Your task to perform on an android device: Open eBay Image 0: 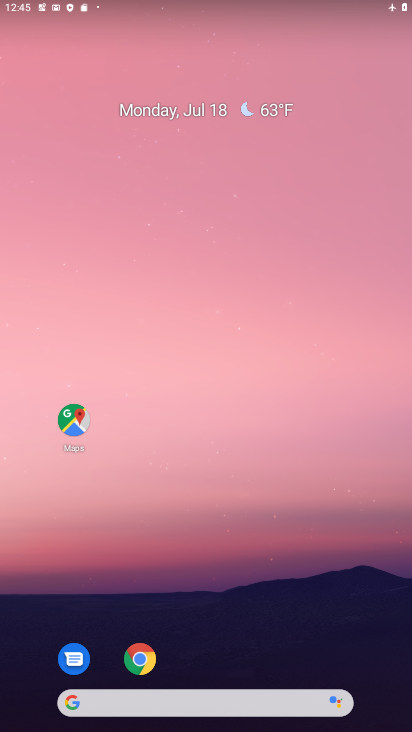
Step 0: drag from (227, 688) to (236, 194)
Your task to perform on an android device: Open eBay Image 1: 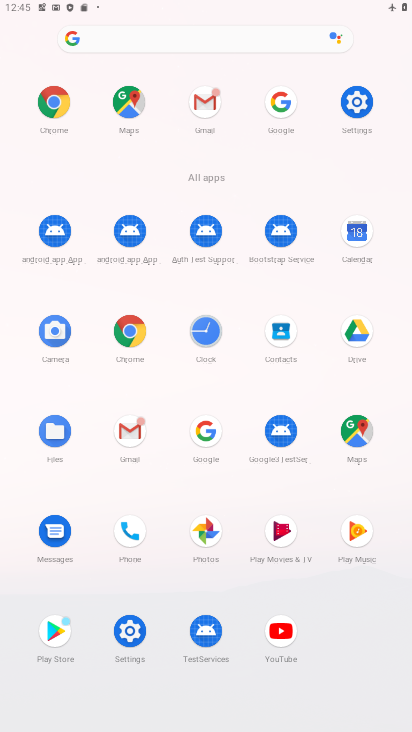
Step 1: click (56, 109)
Your task to perform on an android device: Open eBay Image 2: 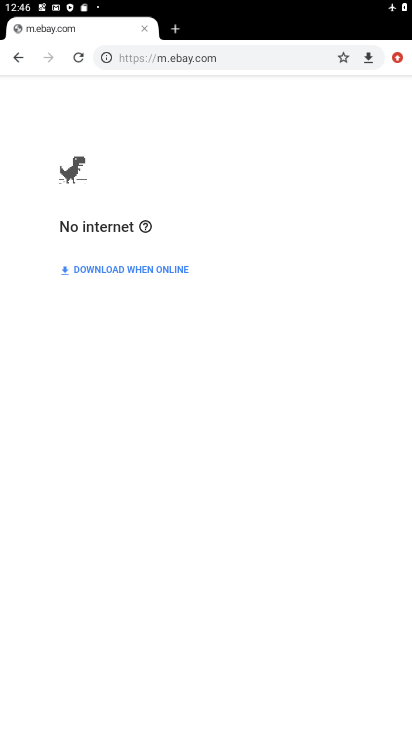
Step 2: task complete